Your task to perform on an android device: turn off notifications settings in the gmail app Image 0: 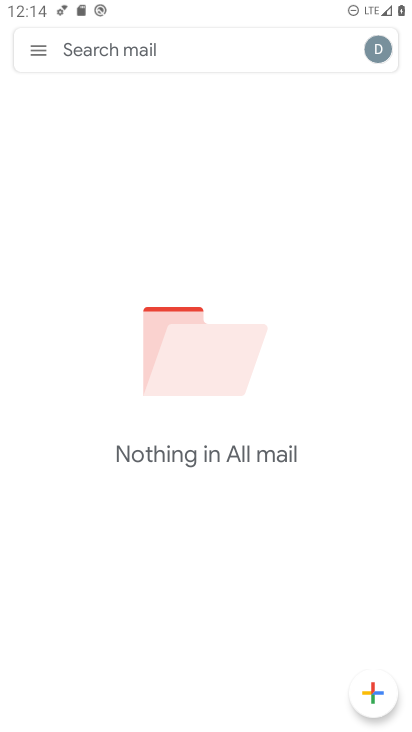
Step 0: press home button
Your task to perform on an android device: turn off notifications settings in the gmail app Image 1: 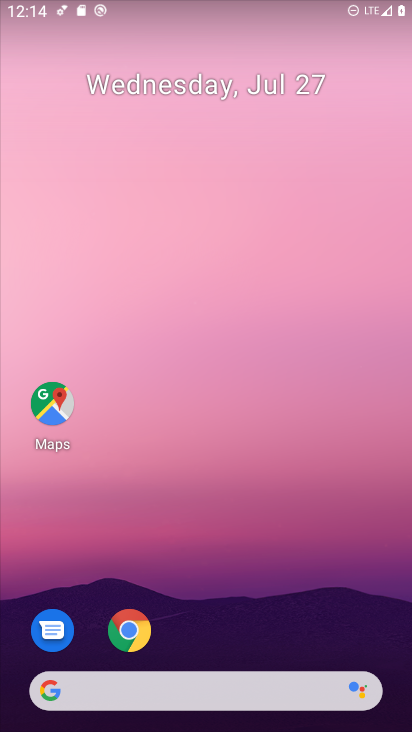
Step 1: drag from (378, 649) to (341, 171)
Your task to perform on an android device: turn off notifications settings in the gmail app Image 2: 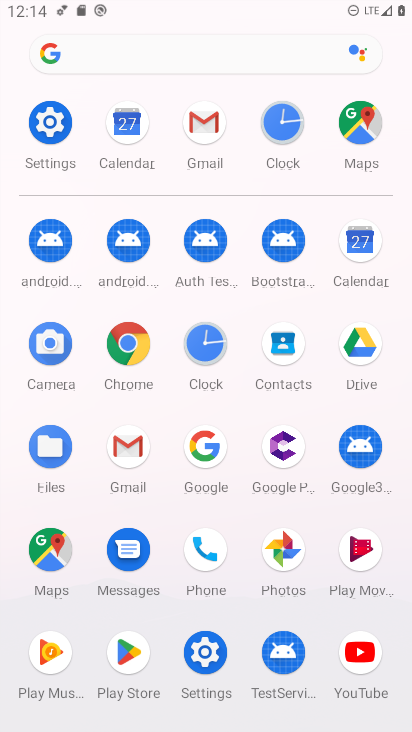
Step 2: click (129, 445)
Your task to perform on an android device: turn off notifications settings in the gmail app Image 3: 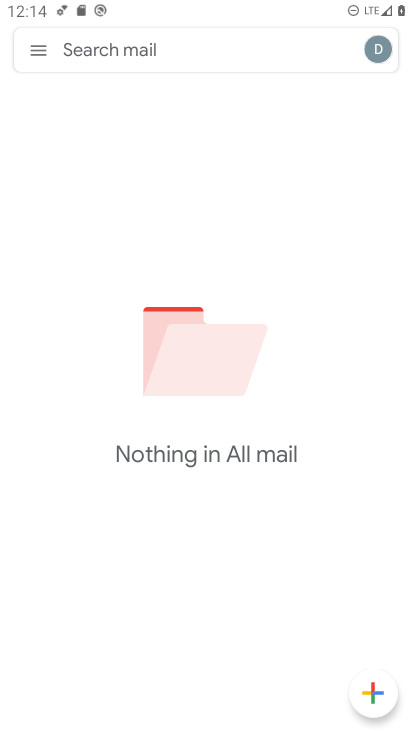
Step 3: click (40, 54)
Your task to perform on an android device: turn off notifications settings in the gmail app Image 4: 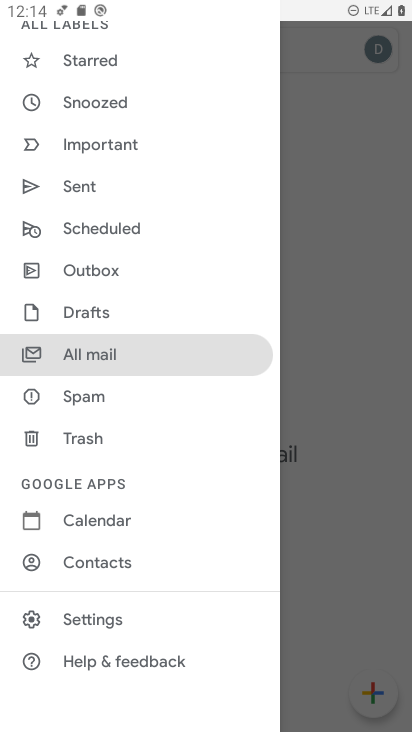
Step 4: click (107, 617)
Your task to perform on an android device: turn off notifications settings in the gmail app Image 5: 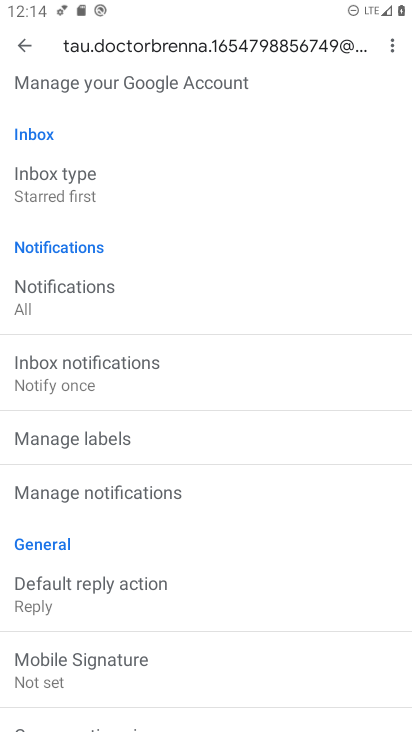
Step 5: click (91, 494)
Your task to perform on an android device: turn off notifications settings in the gmail app Image 6: 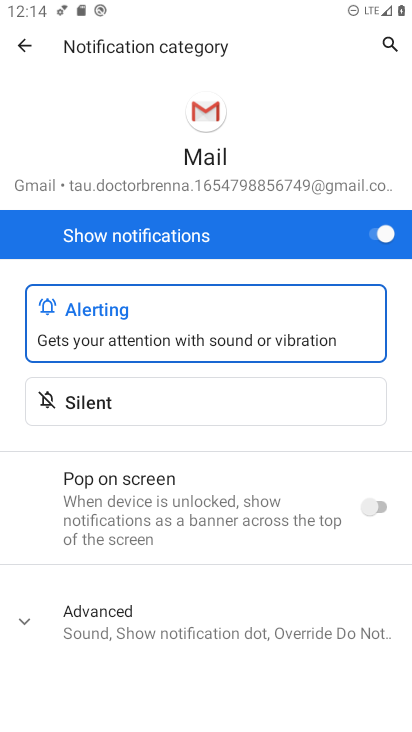
Step 6: click (369, 232)
Your task to perform on an android device: turn off notifications settings in the gmail app Image 7: 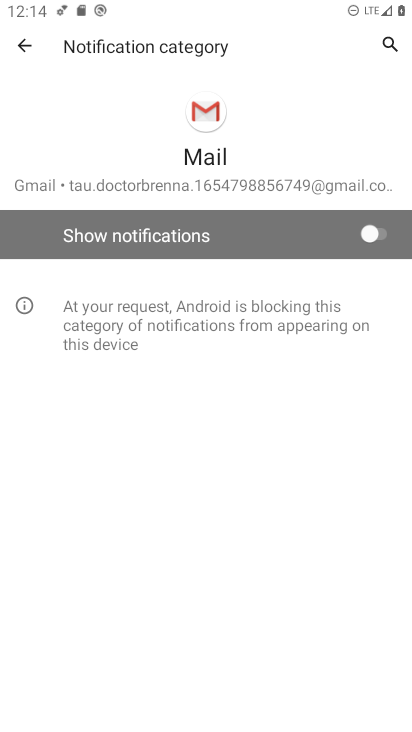
Step 7: task complete